Your task to perform on an android device: Search for Mexican restaurants on Maps Image 0: 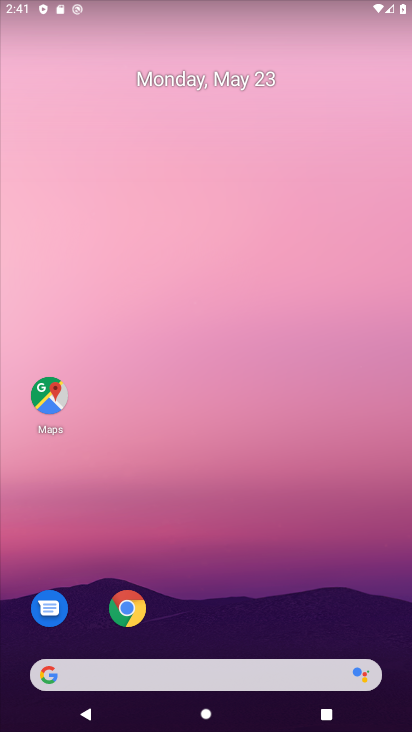
Step 0: click (46, 397)
Your task to perform on an android device: Search for Mexican restaurants on Maps Image 1: 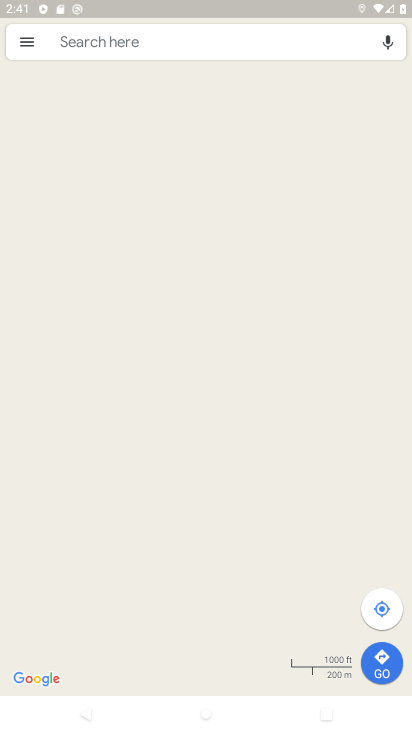
Step 1: click (220, 42)
Your task to perform on an android device: Search for Mexican restaurants on Maps Image 2: 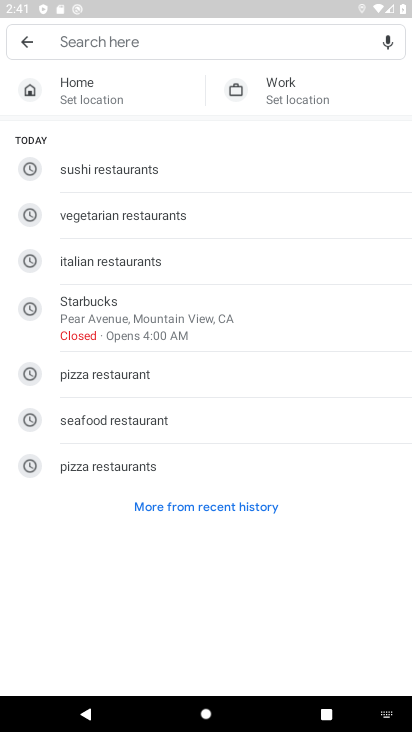
Step 2: type "Mexican restaurants"
Your task to perform on an android device: Search for Mexican restaurants on Maps Image 3: 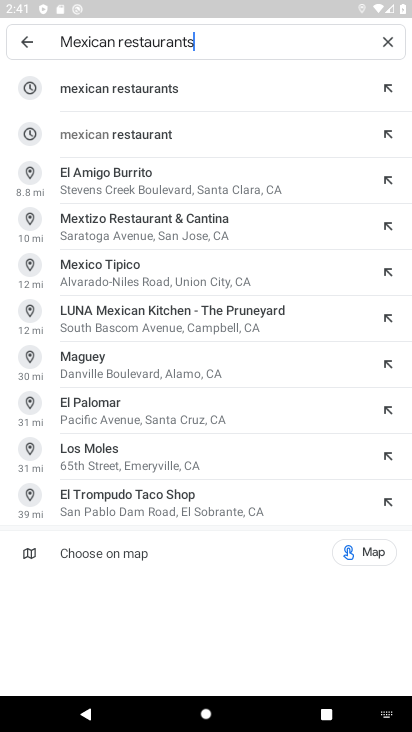
Step 3: click (143, 85)
Your task to perform on an android device: Search for Mexican restaurants on Maps Image 4: 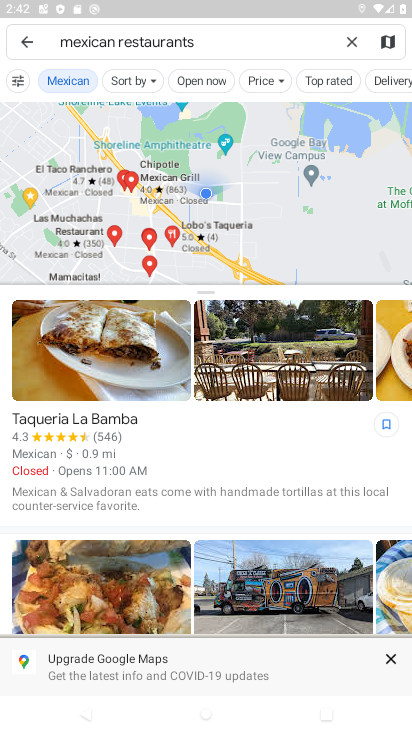
Step 4: task complete